Your task to perform on an android device: check android version Image 0: 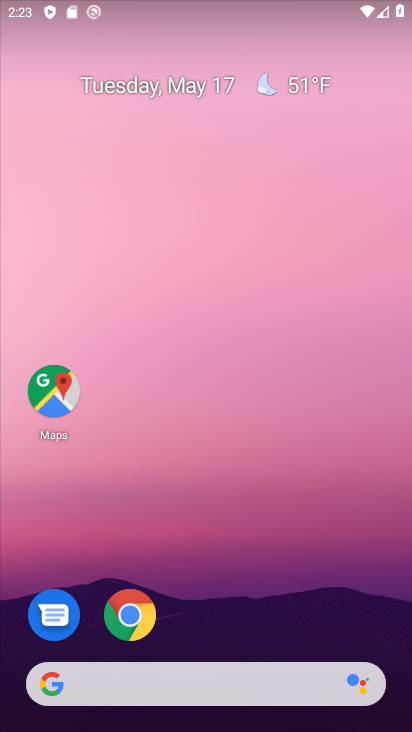
Step 0: drag from (216, 633) to (264, 113)
Your task to perform on an android device: check android version Image 1: 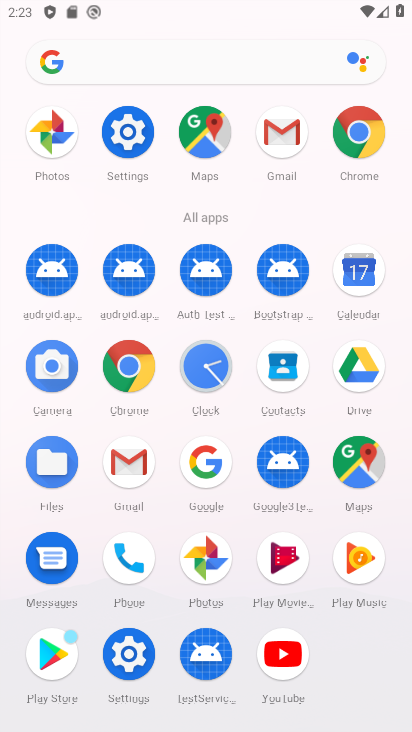
Step 1: click (135, 121)
Your task to perform on an android device: check android version Image 2: 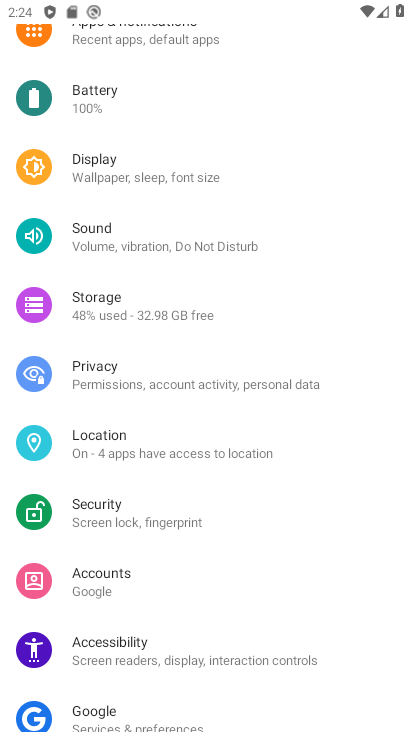
Step 2: drag from (163, 697) to (186, 72)
Your task to perform on an android device: check android version Image 3: 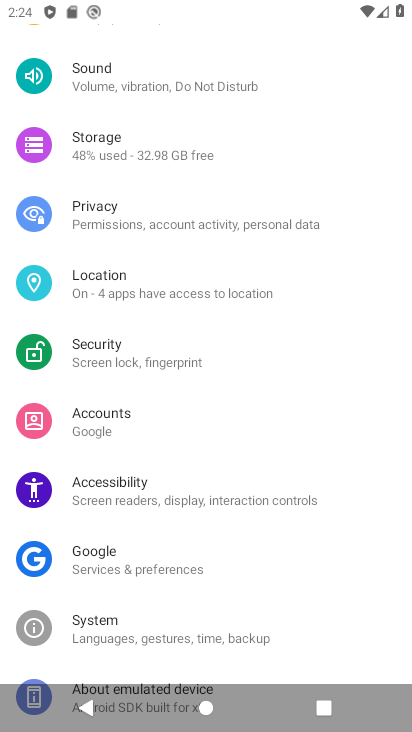
Step 3: drag from (168, 624) to (178, 164)
Your task to perform on an android device: check android version Image 4: 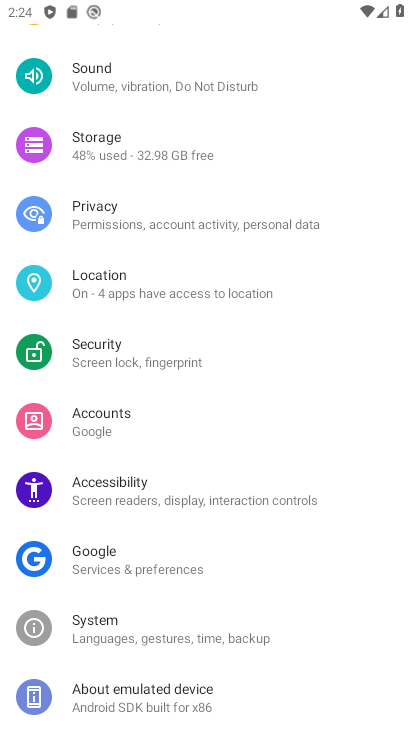
Step 4: click (153, 697)
Your task to perform on an android device: check android version Image 5: 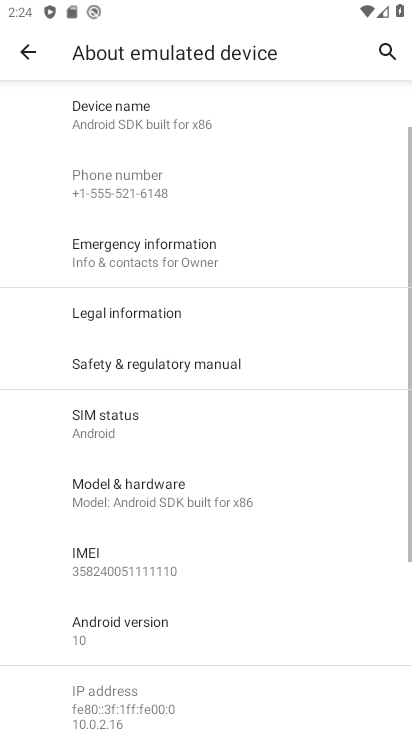
Step 5: drag from (162, 654) to (147, 229)
Your task to perform on an android device: check android version Image 6: 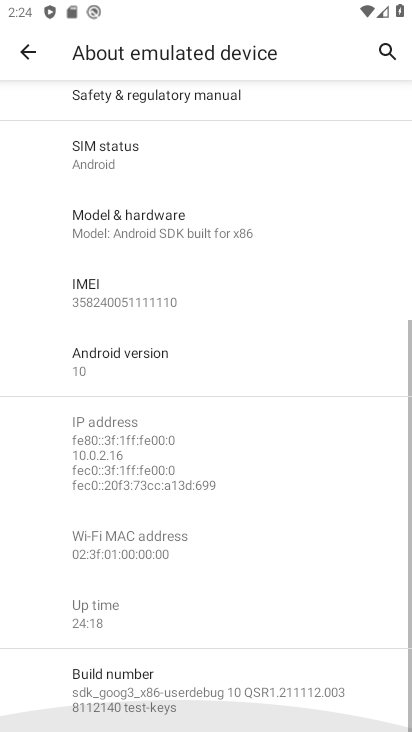
Step 6: drag from (141, 179) to (138, 133)
Your task to perform on an android device: check android version Image 7: 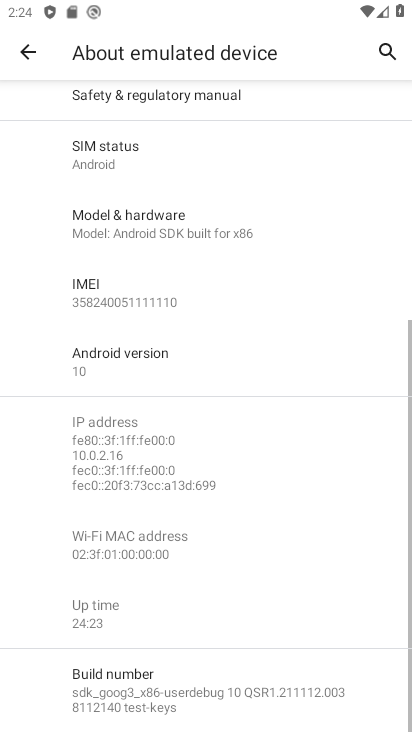
Step 7: click (142, 367)
Your task to perform on an android device: check android version Image 8: 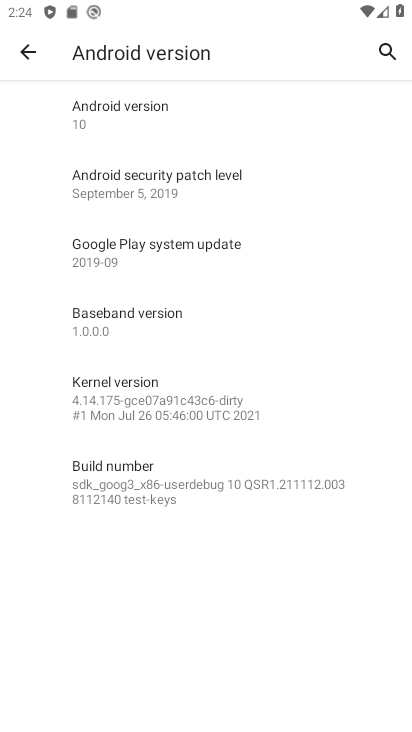
Step 8: task complete